Your task to perform on an android device: change the clock display to show seconds Image 0: 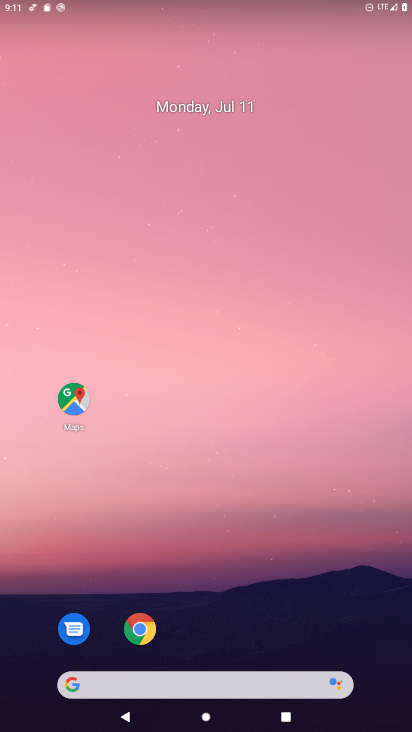
Step 0: drag from (230, 635) to (280, 124)
Your task to perform on an android device: change the clock display to show seconds Image 1: 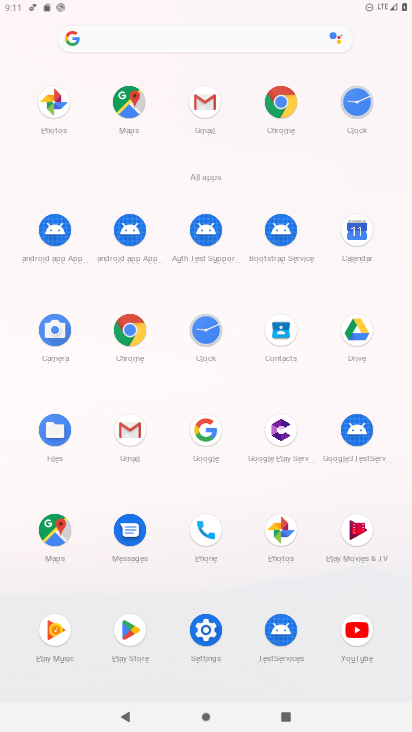
Step 1: click (353, 95)
Your task to perform on an android device: change the clock display to show seconds Image 2: 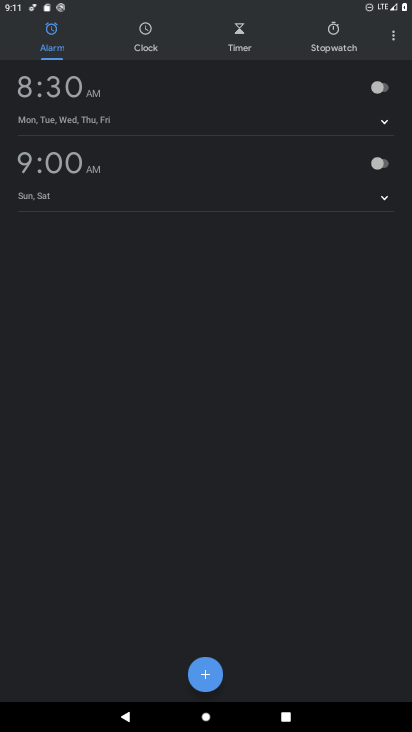
Step 2: click (387, 37)
Your task to perform on an android device: change the clock display to show seconds Image 3: 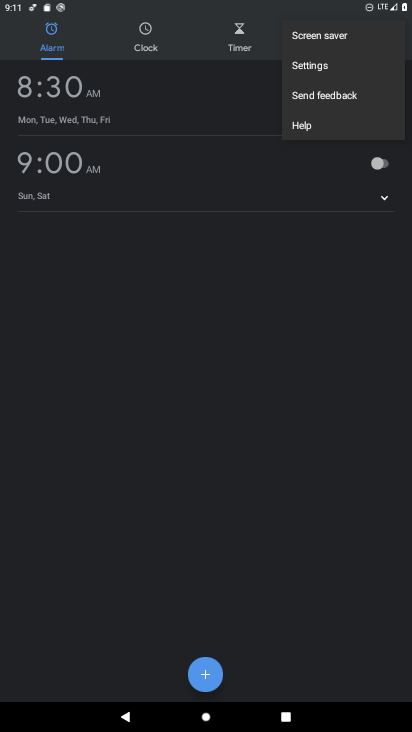
Step 3: click (352, 58)
Your task to perform on an android device: change the clock display to show seconds Image 4: 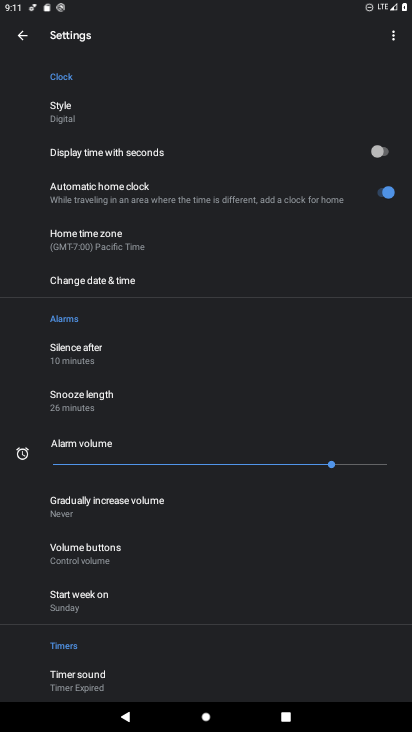
Step 4: click (383, 157)
Your task to perform on an android device: change the clock display to show seconds Image 5: 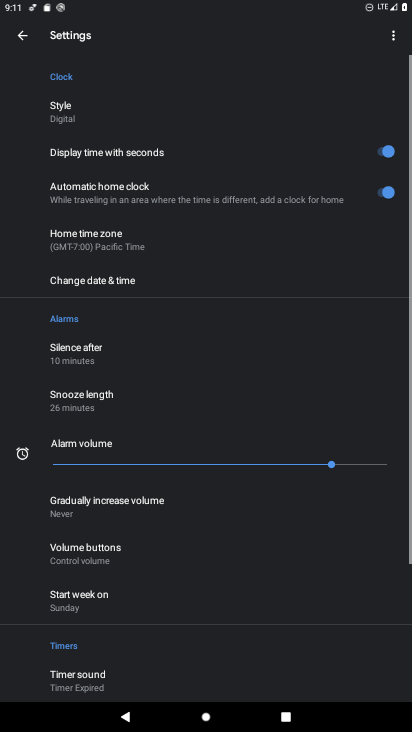
Step 5: task complete